Your task to perform on an android device: See recent photos Image 0: 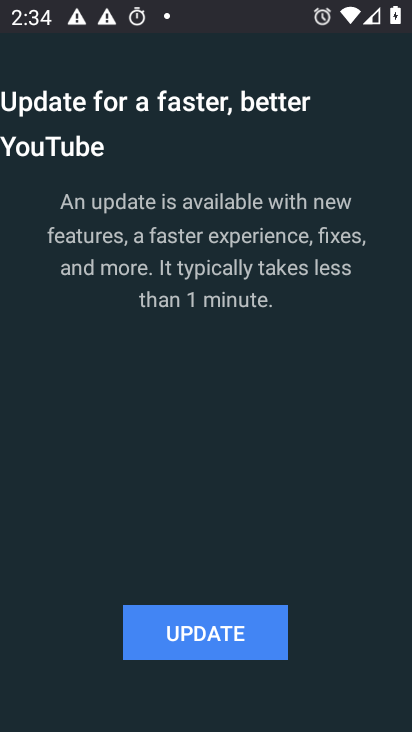
Step 0: press home button
Your task to perform on an android device: See recent photos Image 1: 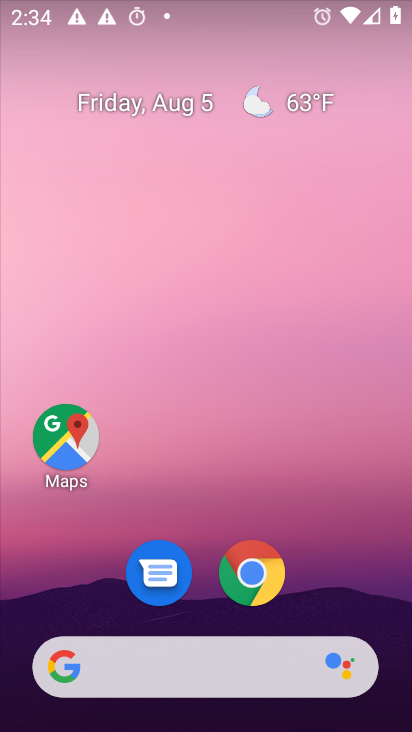
Step 1: drag from (320, 599) to (340, 196)
Your task to perform on an android device: See recent photos Image 2: 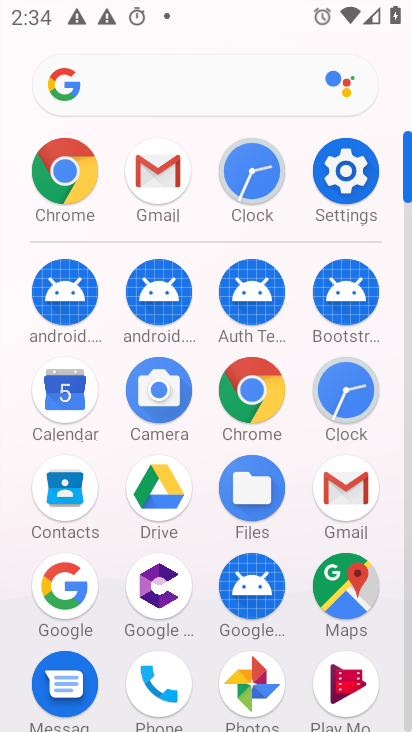
Step 2: drag from (200, 612) to (203, 463)
Your task to perform on an android device: See recent photos Image 3: 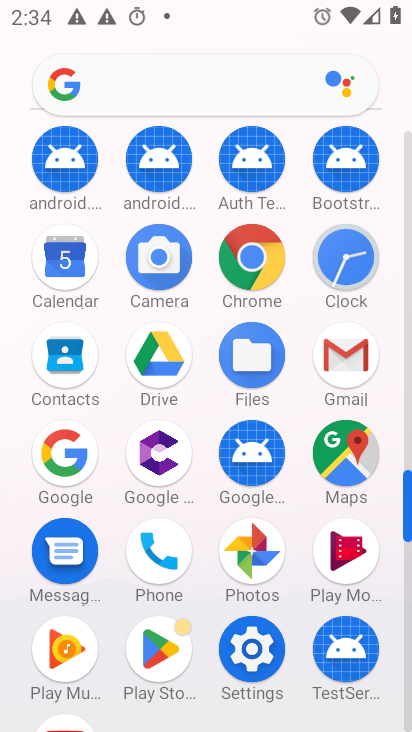
Step 3: click (266, 551)
Your task to perform on an android device: See recent photos Image 4: 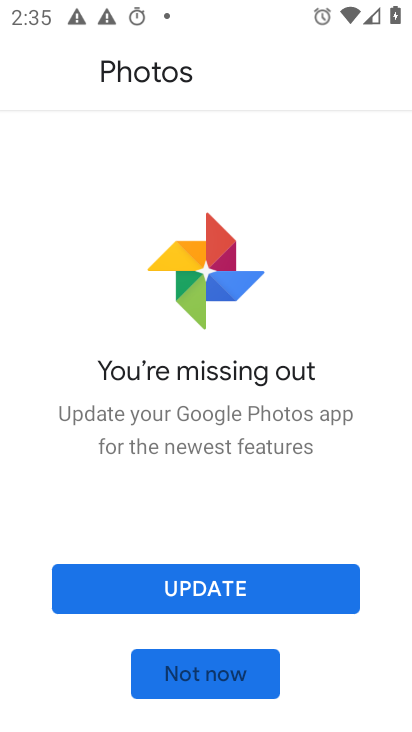
Step 4: click (205, 685)
Your task to perform on an android device: See recent photos Image 5: 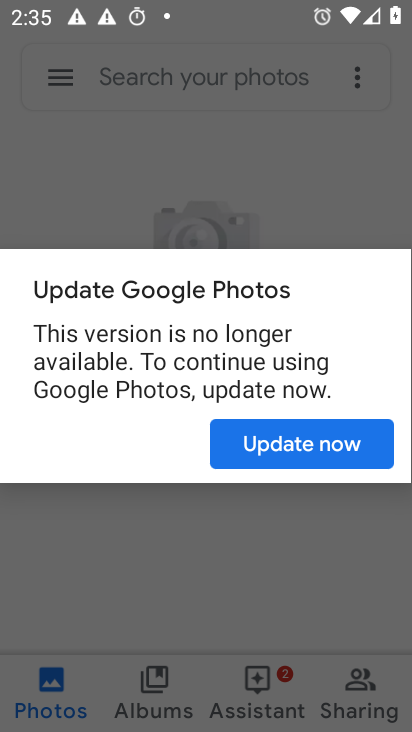
Step 5: click (315, 439)
Your task to perform on an android device: See recent photos Image 6: 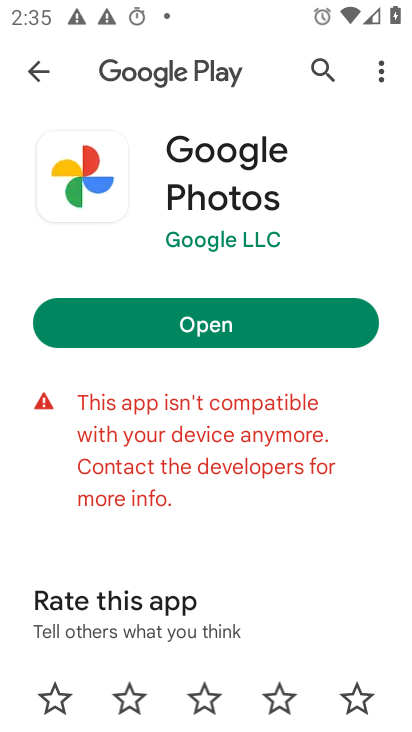
Step 6: click (284, 323)
Your task to perform on an android device: See recent photos Image 7: 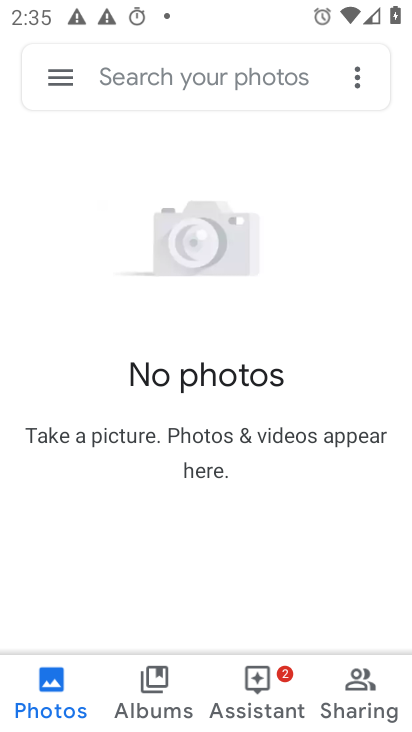
Step 7: task complete